Your task to perform on an android device: Open Youtube and go to the subscriptions tab Image 0: 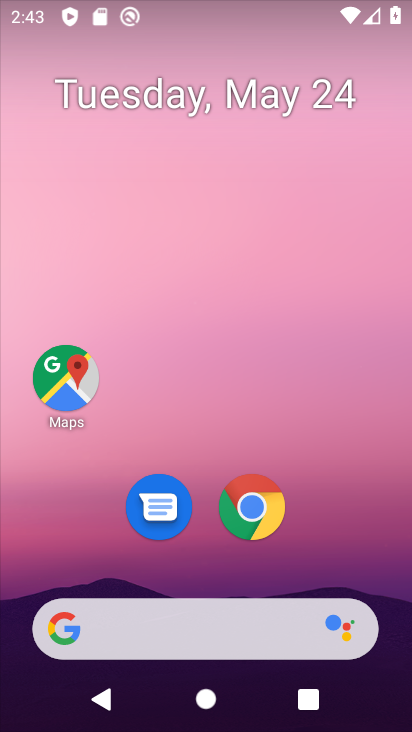
Step 0: drag from (214, 433) to (295, 17)
Your task to perform on an android device: Open Youtube and go to the subscriptions tab Image 1: 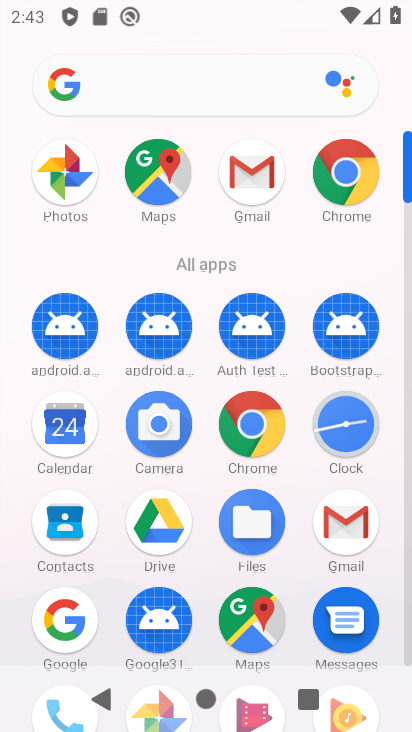
Step 1: drag from (236, 605) to (338, 41)
Your task to perform on an android device: Open Youtube and go to the subscriptions tab Image 2: 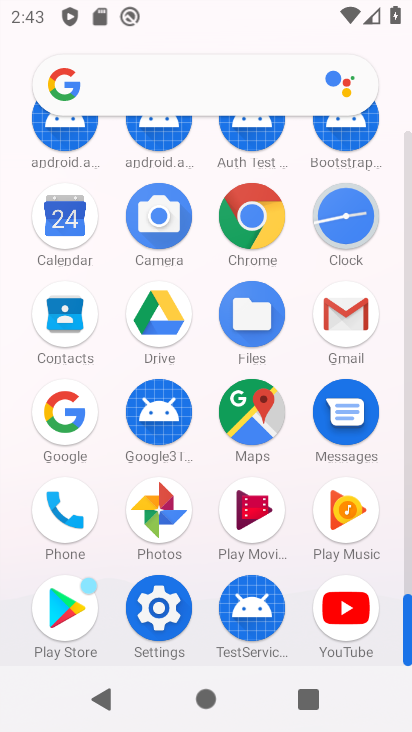
Step 2: click (340, 612)
Your task to perform on an android device: Open Youtube and go to the subscriptions tab Image 3: 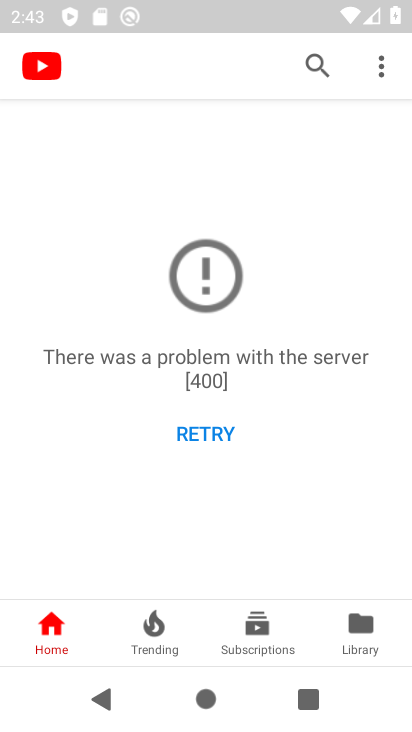
Step 3: click (241, 637)
Your task to perform on an android device: Open Youtube and go to the subscriptions tab Image 4: 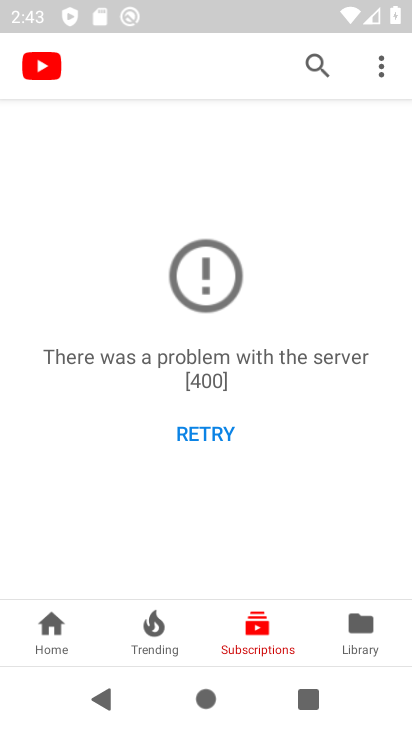
Step 4: task complete